Your task to perform on an android device: Open the calendar and show me this week's events? Image 0: 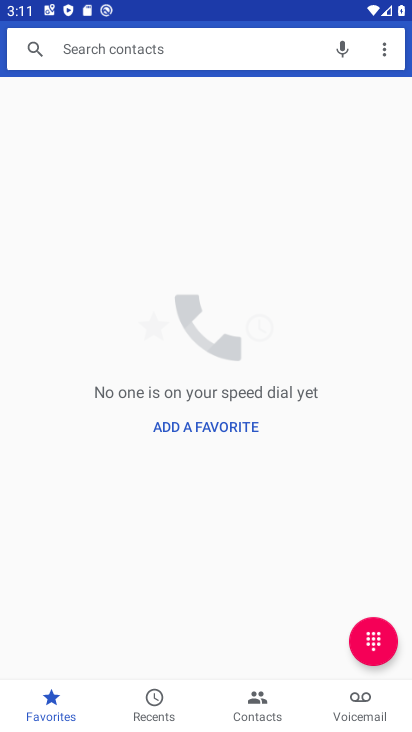
Step 0: press home button
Your task to perform on an android device: Open the calendar and show me this week's events? Image 1: 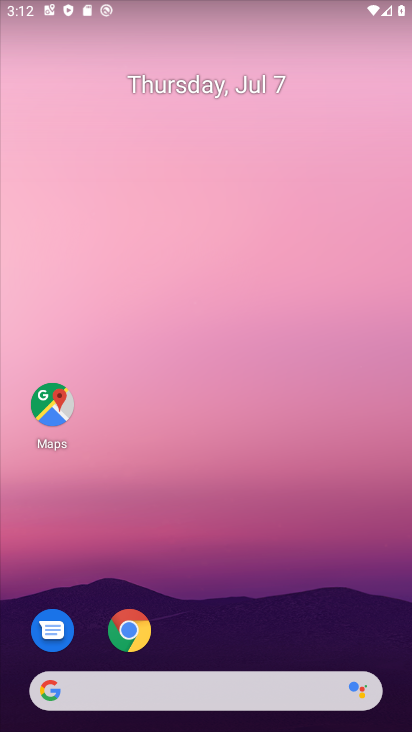
Step 1: drag from (216, 651) to (411, 352)
Your task to perform on an android device: Open the calendar and show me this week's events? Image 2: 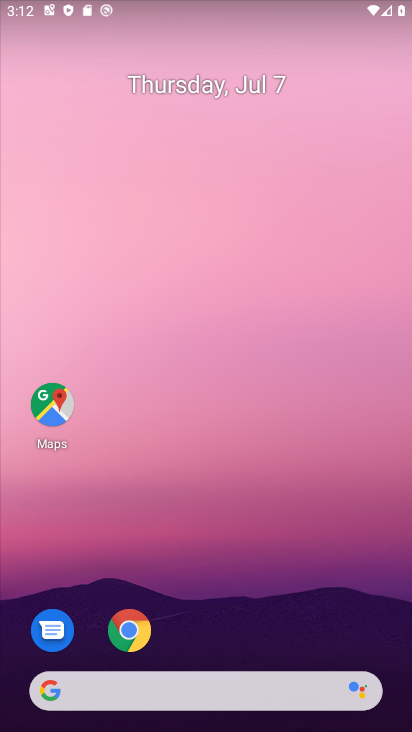
Step 2: drag from (195, 668) to (323, 6)
Your task to perform on an android device: Open the calendar and show me this week's events? Image 3: 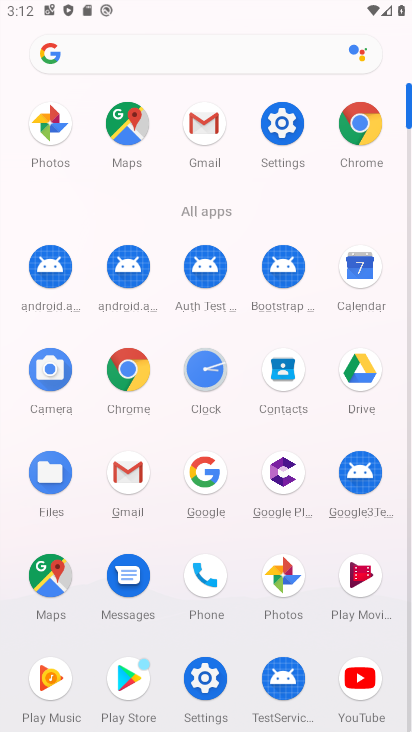
Step 3: click (357, 284)
Your task to perform on an android device: Open the calendar and show me this week's events? Image 4: 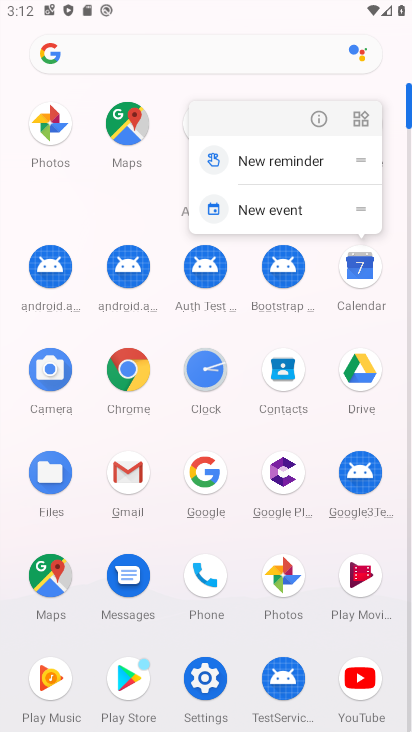
Step 4: click (372, 285)
Your task to perform on an android device: Open the calendar and show me this week's events? Image 5: 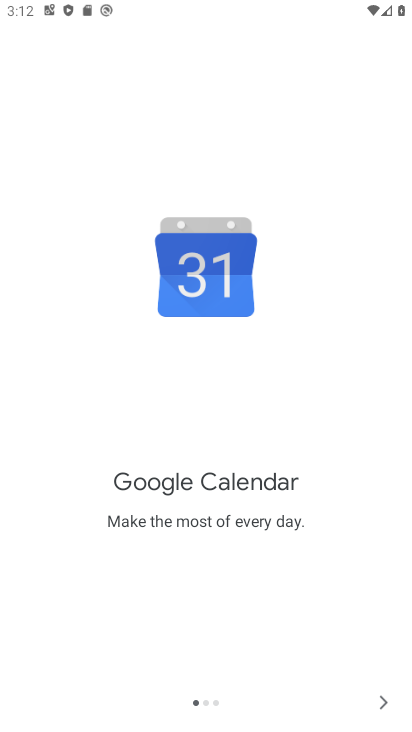
Step 5: click (385, 700)
Your task to perform on an android device: Open the calendar and show me this week's events? Image 6: 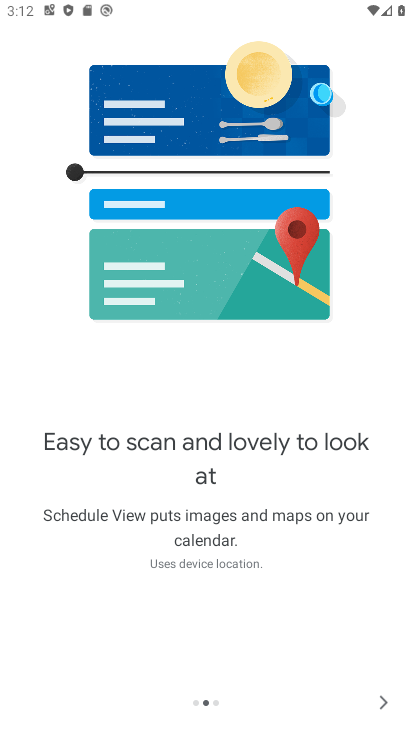
Step 6: click (381, 700)
Your task to perform on an android device: Open the calendar and show me this week's events? Image 7: 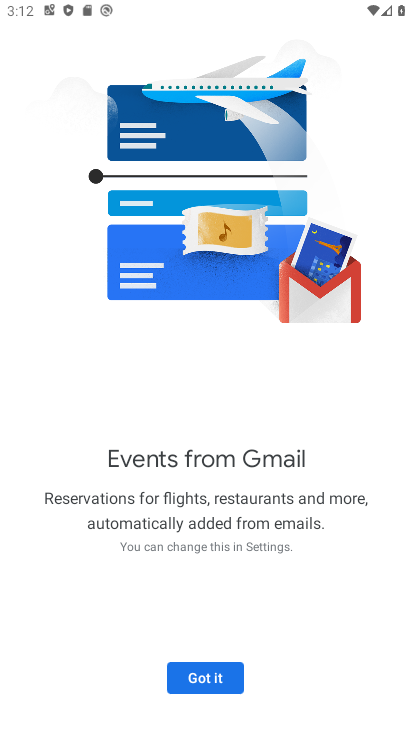
Step 7: click (216, 671)
Your task to perform on an android device: Open the calendar and show me this week's events? Image 8: 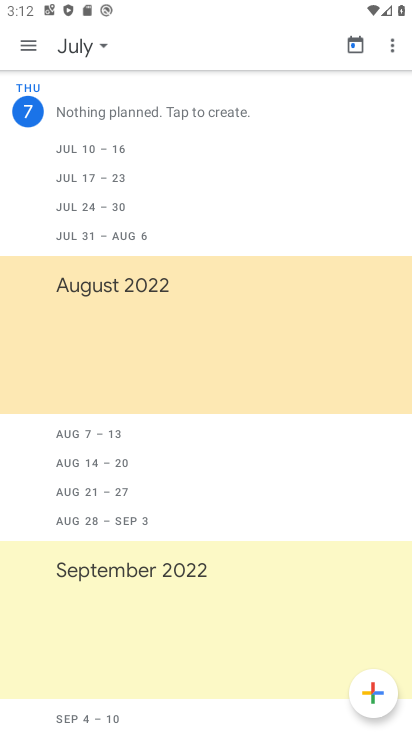
Step 8: click (27, 46)
Your task to perform on an android device: Open the calendar and show me this week's events? Image 9: 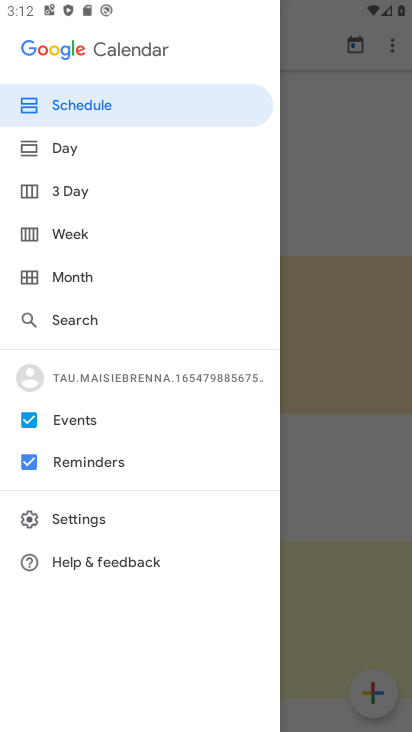
Step 9: click (45, 465)
Your task to perform on an android device: Open the calendar and show me this week's events? Image 10: 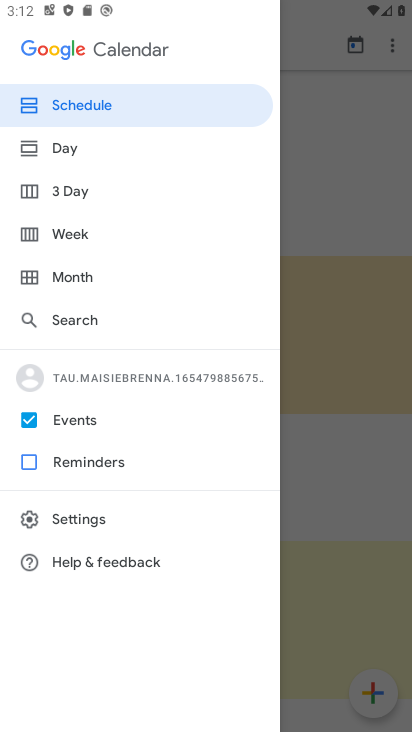
Step 10: click (77, 241)
Your task to perform on an android device: Open the calendar and show me this week's events? Image 11: 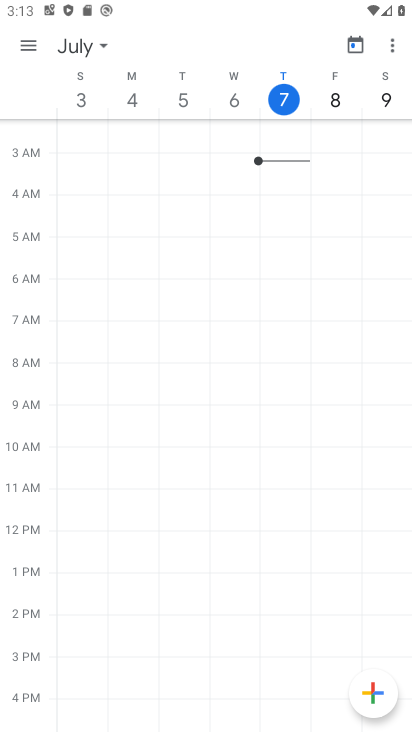
Step 11: task complete